Your task to perform on an android device: Open the phone app and click the voicemail tab. Image 0: 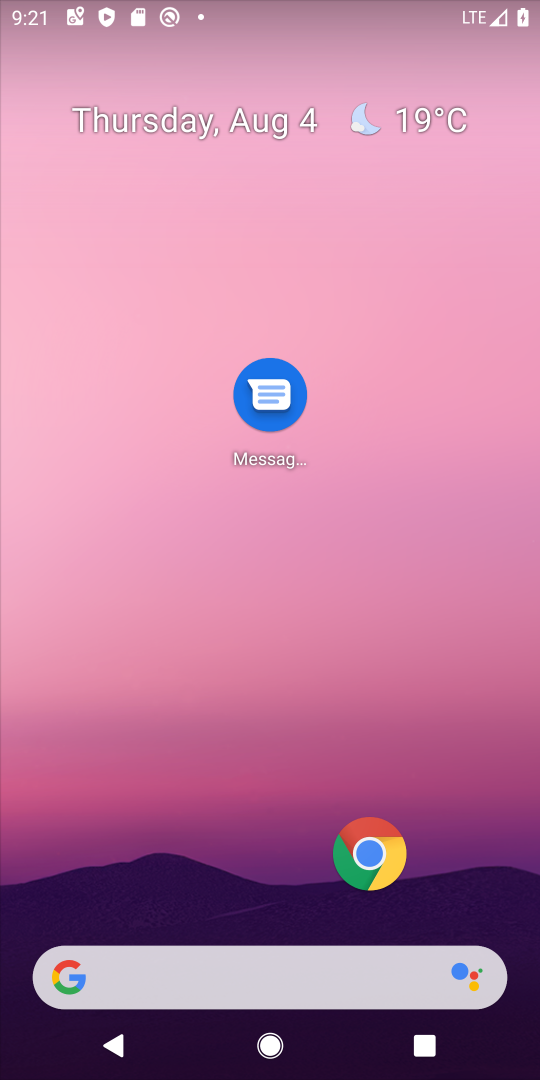
Step 0: press home button
Your task to perform on an android device: Open the phone app and click the voicemail tab. Image 1: 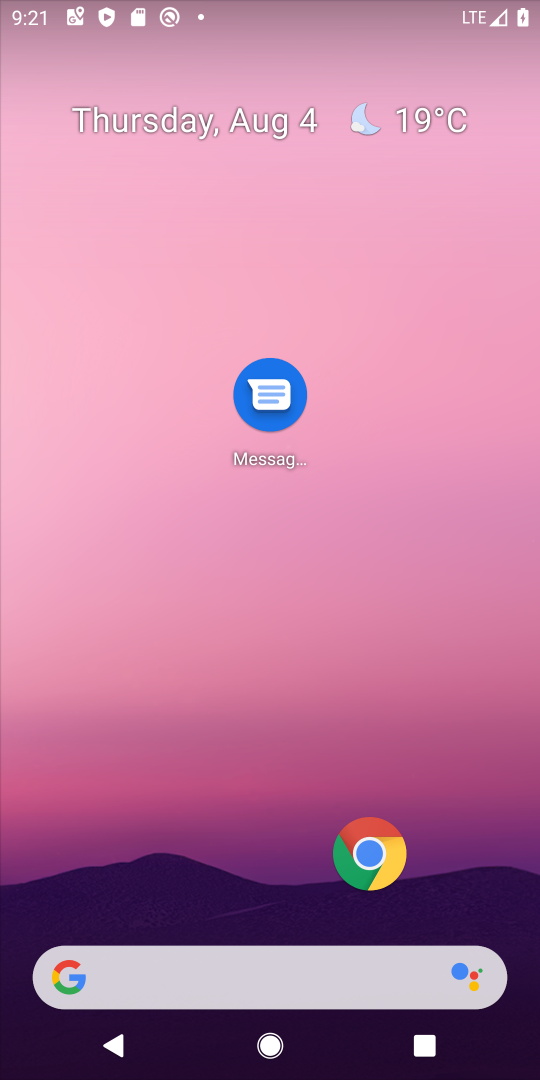
Step 1: drag from (247, 963) to (247, 254)
Your task to perform on an android device: Open the phone app and click the voicemail tab. Image 2: 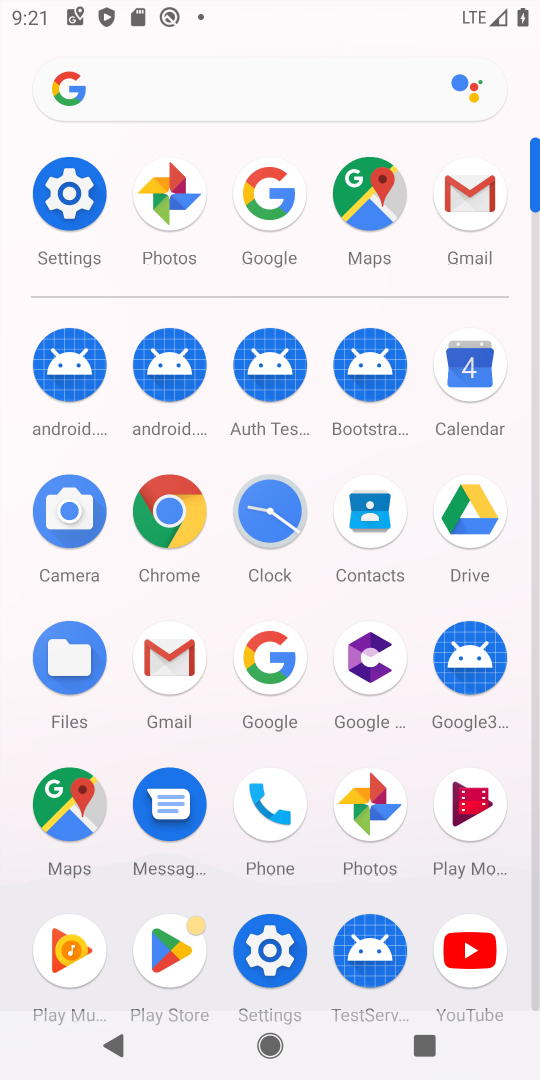
Step 2: click (464, 802)
Your task to perform on an android device: Open the phone app and click the voicemail tab. Image 3: 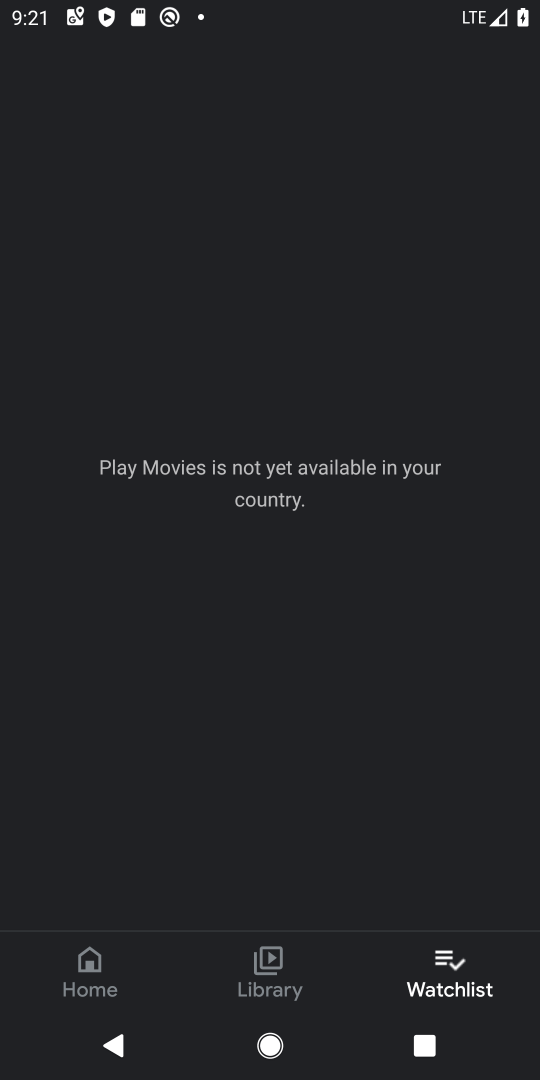
Step 3: press home button
Your task to perform on an android device: Open the phone app and click the voicemail tab. Image 4: 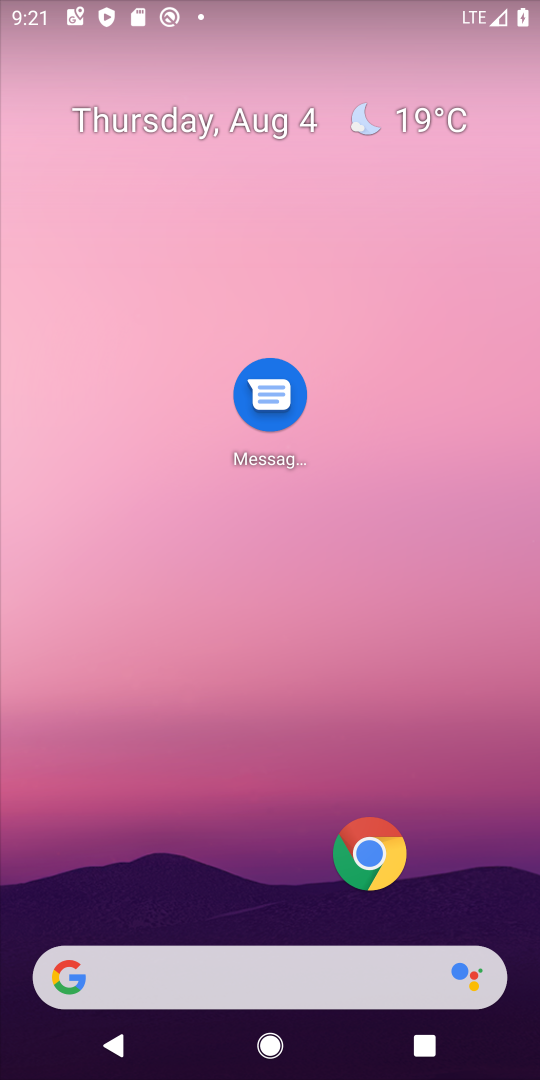
Step 4: drag from (238, 738) to (238, 335)
Your task to perform on an android device: Open the phone app and click the voicemail tab. Image 5: 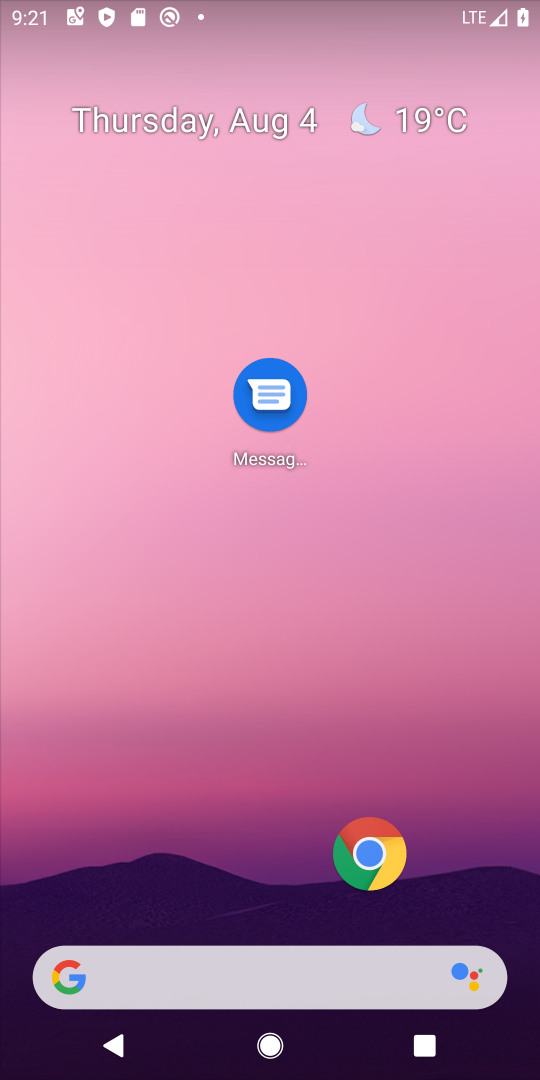
Step 5: drag from (315, 942) to (258, 416)
Your task to perform on an android device: Open the phone app and click the voicemail tab. Image 6: 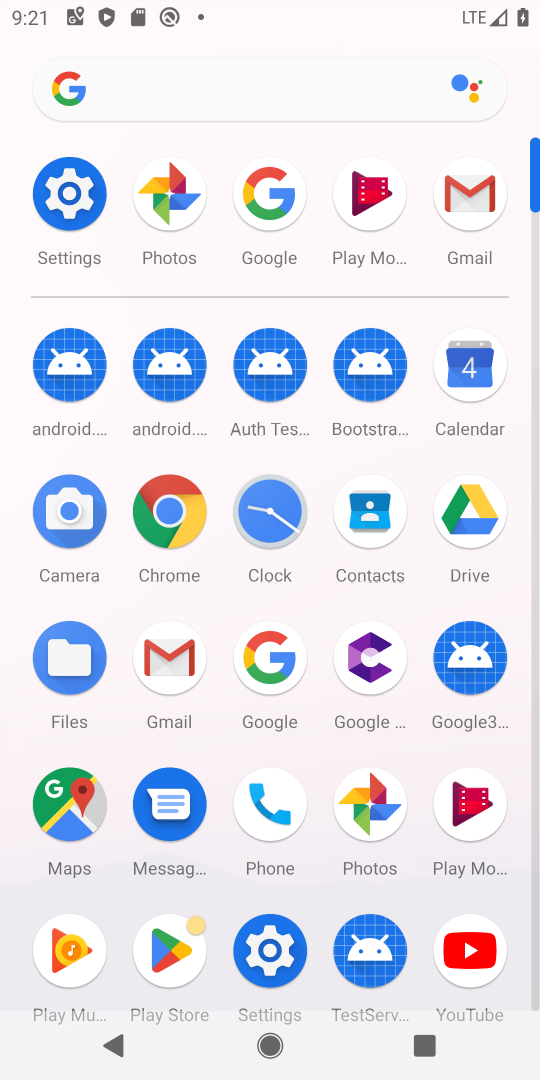
Step 6: click (289, 844)
Your task to perform on an android device: Open the phone app and click the voicemail tab. Image 7: 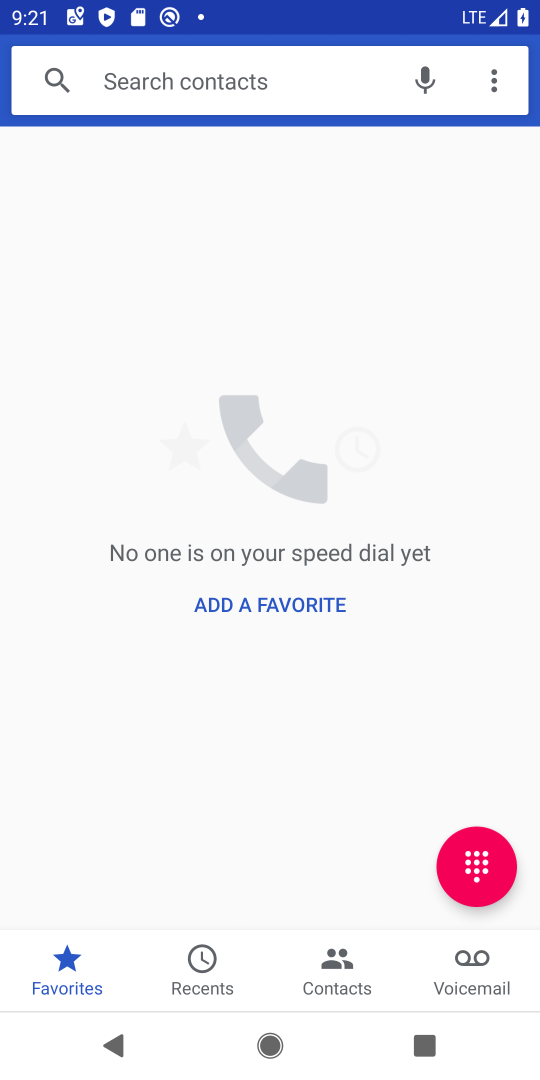
Step 7: click (447, 979)
Your task to perform on an android device: Open the phone app and click the voicemail tab. Image 8: 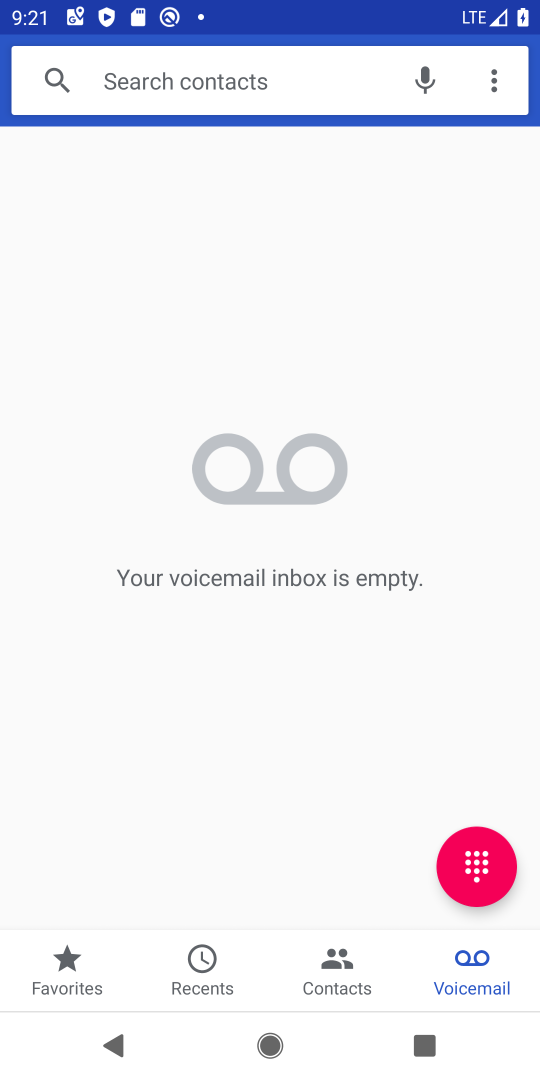
Step 8: task complete